Your task to perform on an android device: Open settings Image 0: 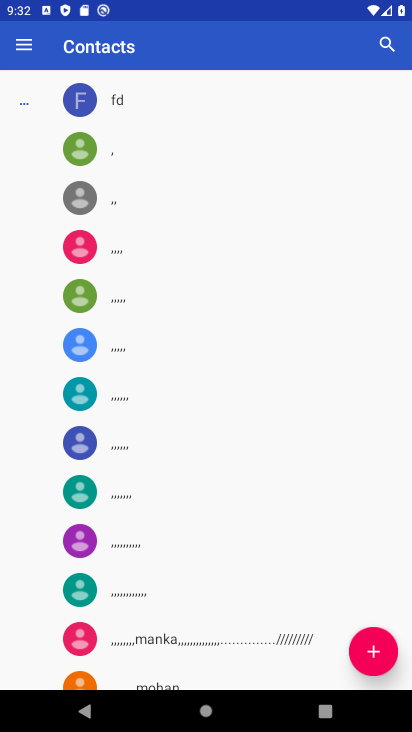
Step 0: press home button
Your task to perform on an android device: Open settings Image 1: 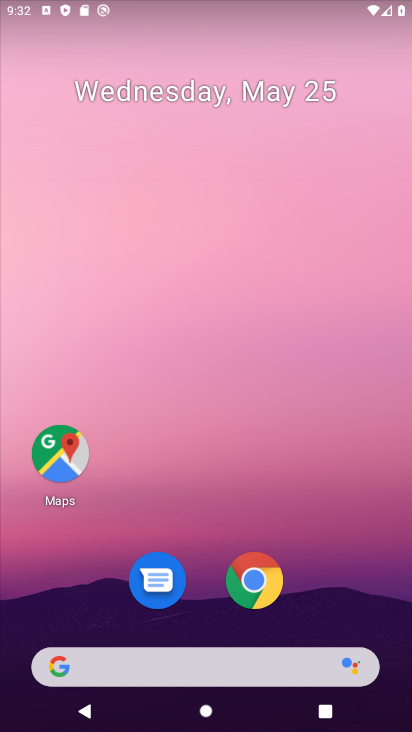
Step 1: drag from (10, 477) to (199, 87)
Your task to perform on an android device: Open settings Image 2: 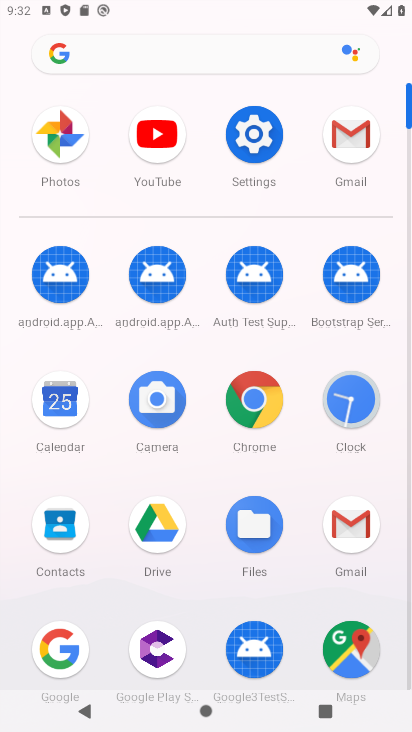
Step 2: click (253, 136)
Your task to perform on an android device: Open settings Image 3: 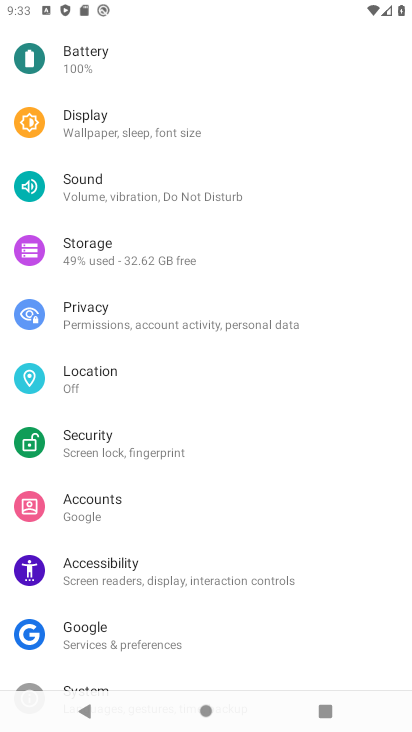
Step 3: task complete